Your task to perform on an android device: toggle sleep mode Image 0: 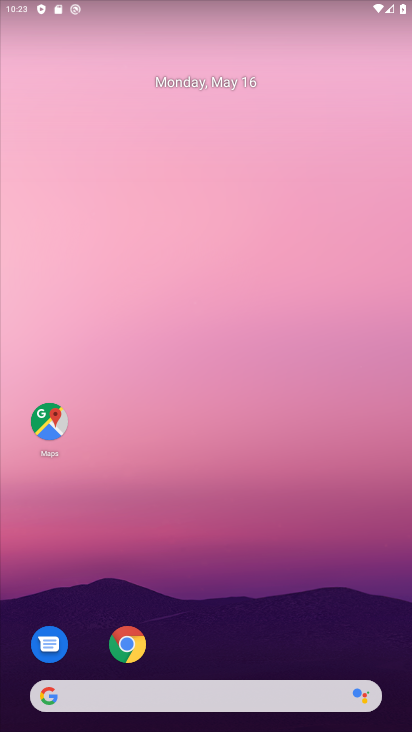
Step 0: drag from (211, 728) to (207, 115)
Your task to perform on an android device: toggle sleep mode Image 1: 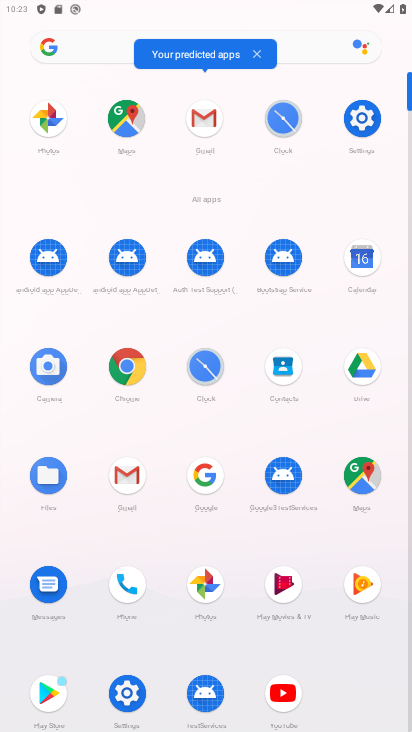
Step 1: click (360, 119)
Your task to perform on an android device: toggle sleep mode Image 2: 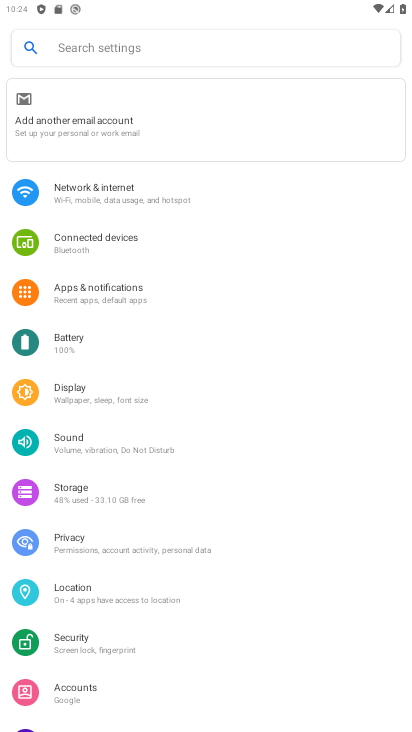
Step 2: click (66, 391)
Your task to perform on an android device: toggle sleep mode Image 3: 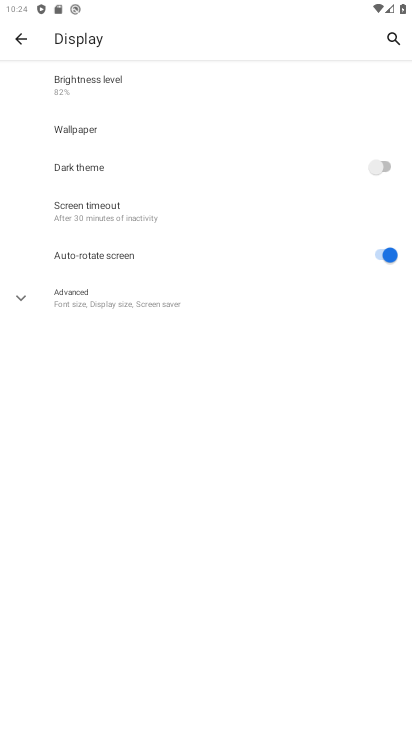
Step 3: task complete